Your task to perform on an android device: set the stopwatch Image 0: 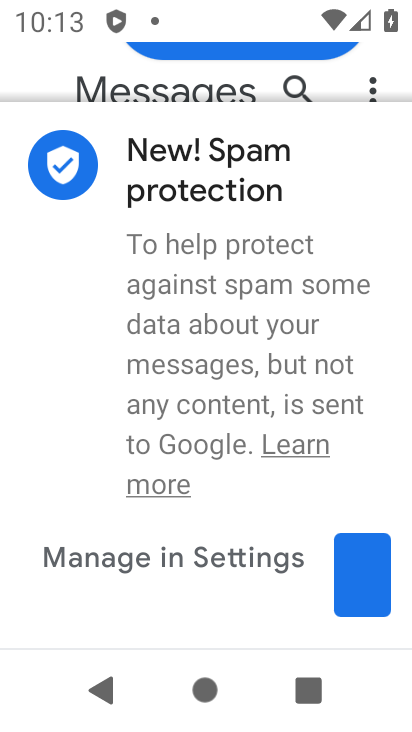
Step 0: press back button
Your task to perform on an android device: set the stopwatch Image 1: 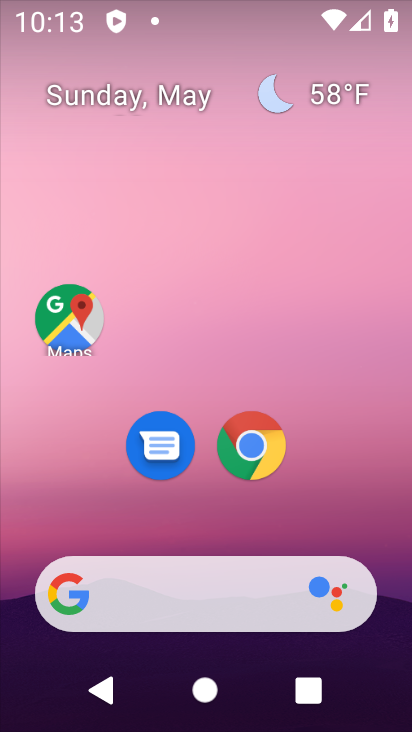
Step 1: drag from (348, 529) to (225, 0)
Your task to perform on an android device: set the stopwatch Image 2: 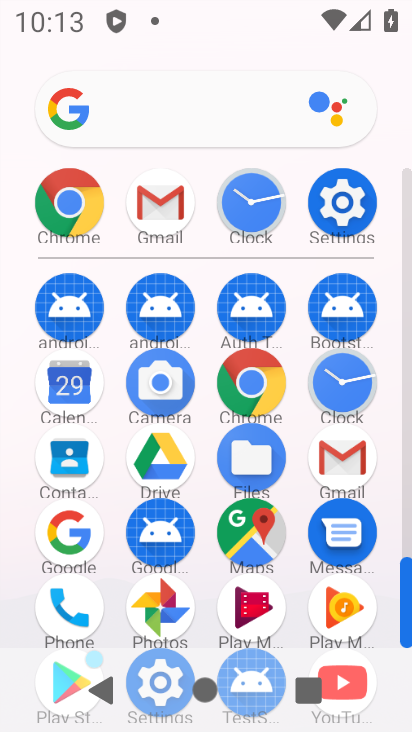
Step 2: drag from (7, 506) to (0, 192)
Your task to perform on an android device: set the stopwatch Image 3: 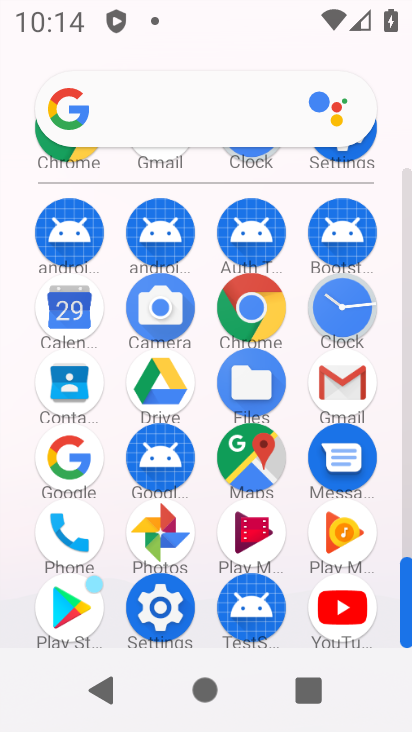
Step 3: click (337, 302)
Your task to perform on an android device: set the stopwatch Image 4: 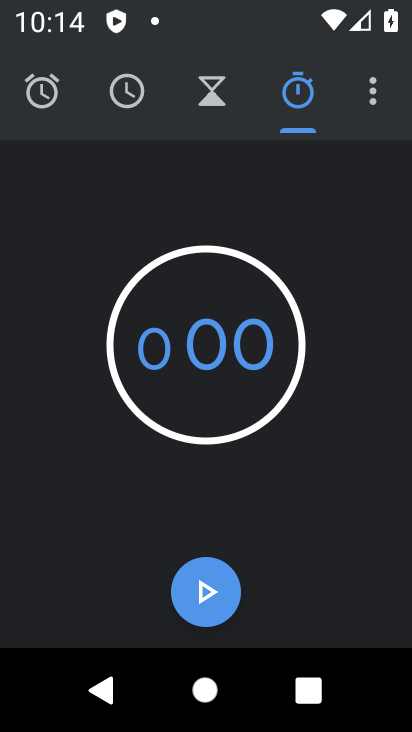
Step 4: click (216, 580)
Your task to perform on an android device: set the stopwatch Image 5: 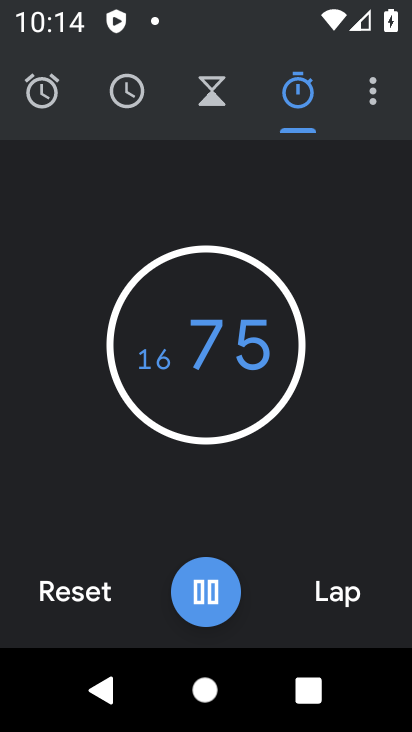
Step 5: task complete